Your task to perform on an android device: Search for Italian restaurants on Maps Image 0: 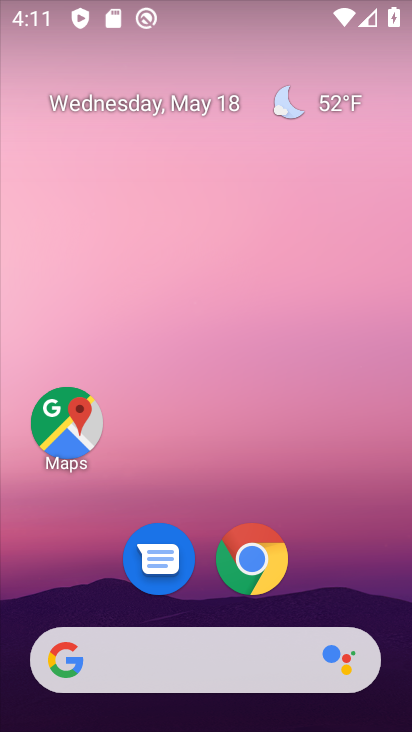
Step 0: click (53, 418)
Your task to perform on an android device: Search for Italian restaurants on Maps Image 1: 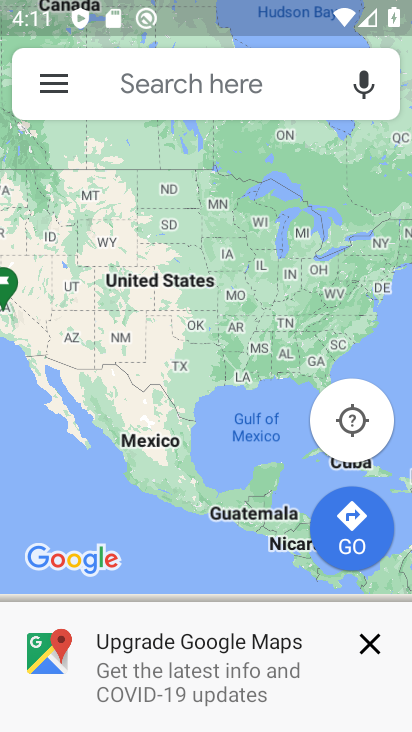
Step 1: click (197, 80)
Your task to perform on an android device: Search for Italian restaurants on Maps Image 2: 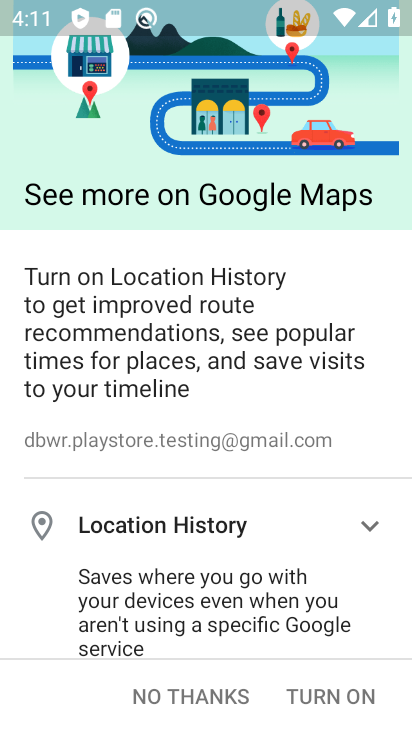
Step 2: click (202, 701)
Your task to perform on an android device: Search for Italian restaurants on Maps Image 3: 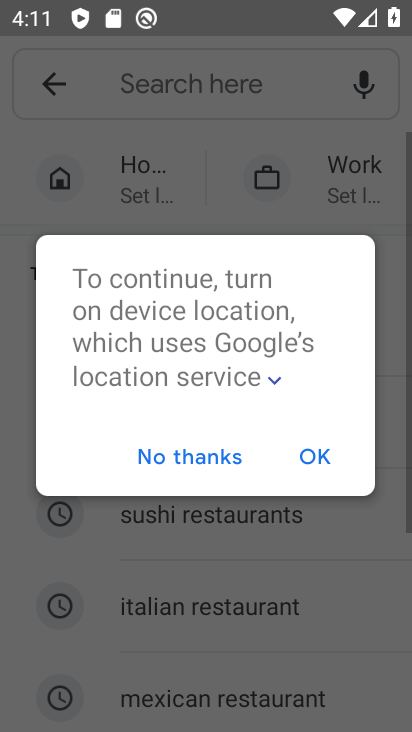
Step 3: click (292, 464)
Your task to perform on an android device: Search for Italian restaurants on Maps Image 4: 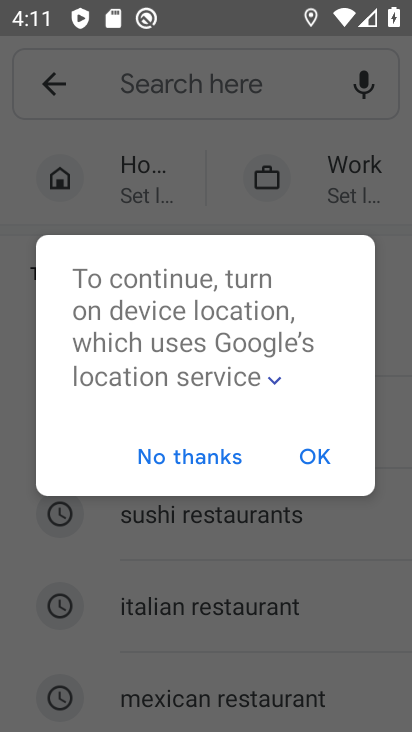
Step 4: click (295, 446)
Your task to perform on an android device: Search for Italian restaurants on Maps Image 5: 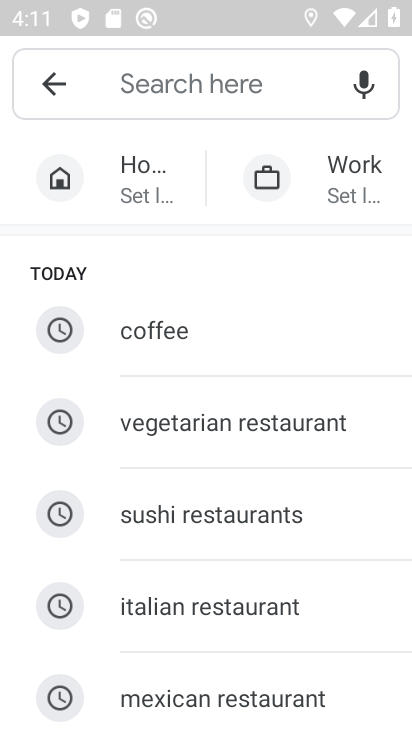
Step 5: click (165, 600)
Your task to perform on an android device: Search for Italian restaurants on Maps Image 6: 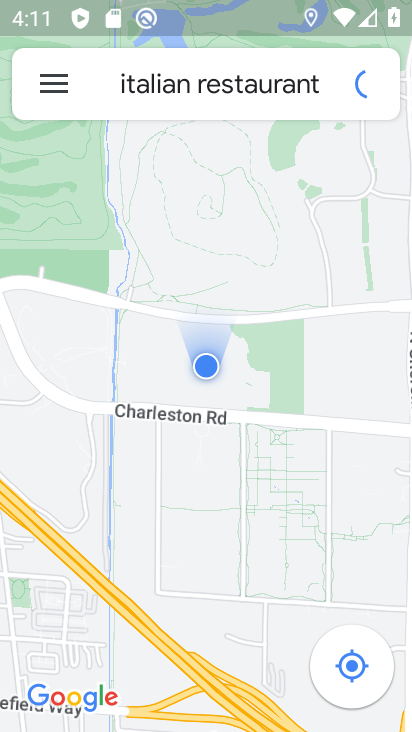
Step 6: task complete